Your task to perform on an android device: What's the weather? Image 0: 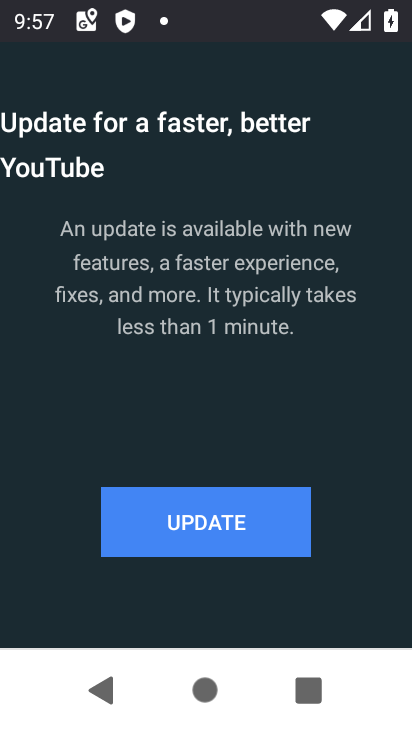
Step 0: press home button
Your task to perform on an android device: What's the weather? Image 1: 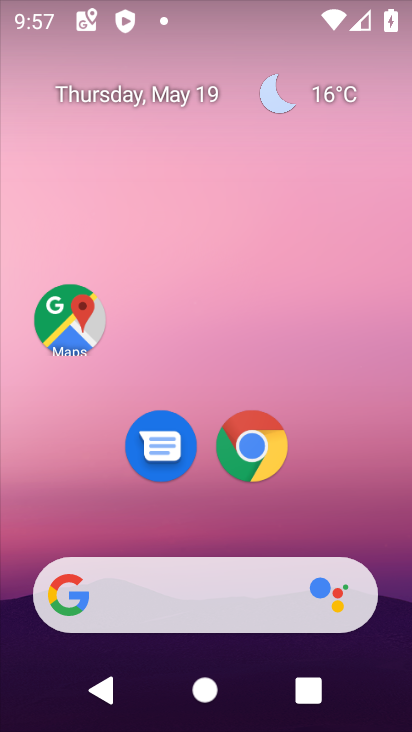
Step 1: click (279, 107)
Your task to perform on an android device: What's the weather? Image 2: 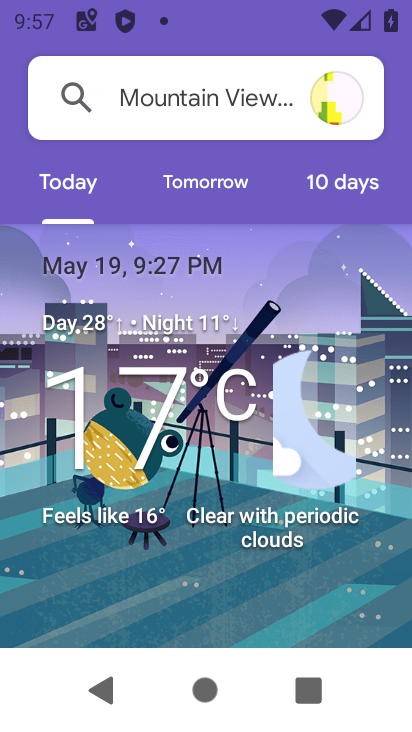
Step 2: task complete